Your task to perform on an android device: Open CNN.com Image 0: 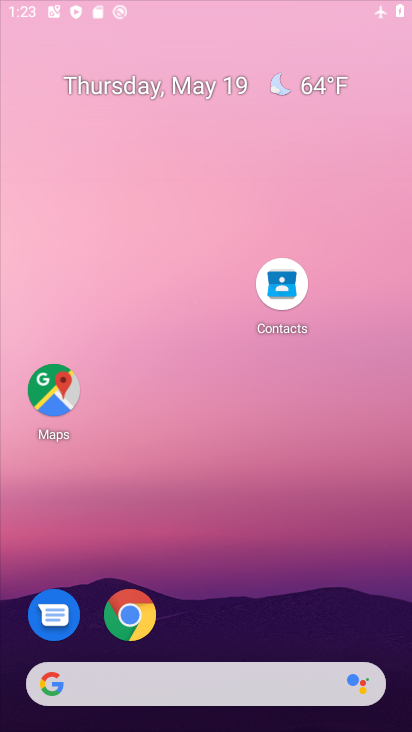
Step 0: drag from (224, 509) to (338, 18)
Your task to perform on an android device: Open CNN.com Image 1: 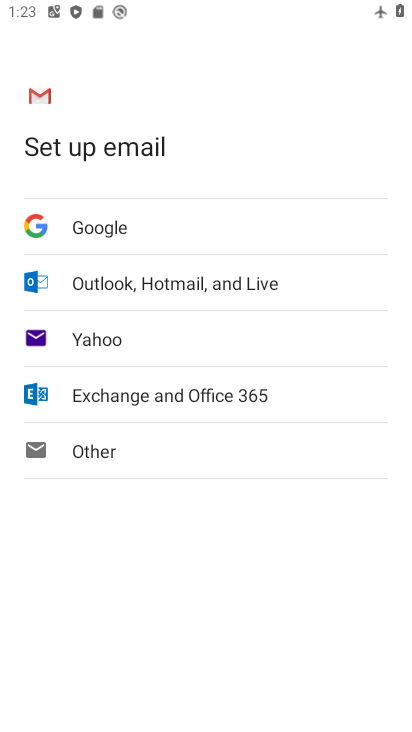
Step 1: press home button
Your task to perform on an android device: Open CNN.com Image 2: 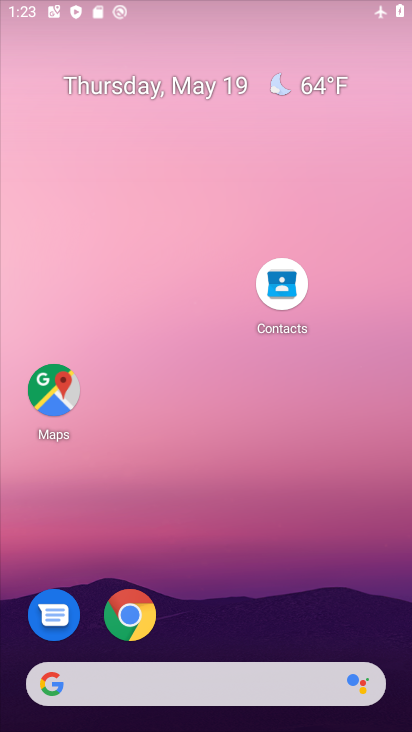
Step 2: drag from (266, 522) to (329, 235)
Your task to perform on an android device: Open CNN.com Image 3: 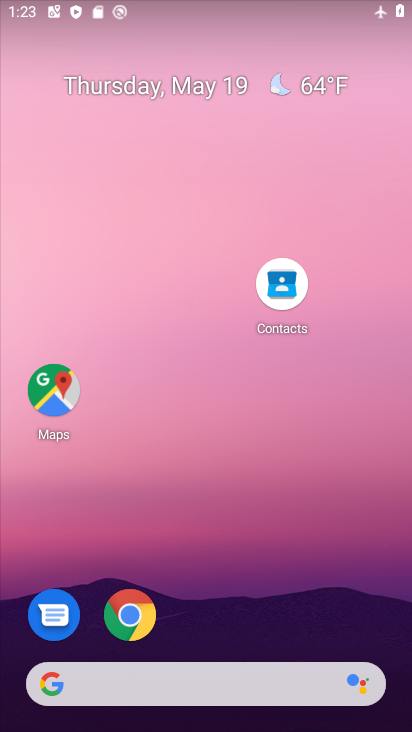
Step 3: click (143, 630)
Your task to perform on an android device: Open CNN.com Image 4: 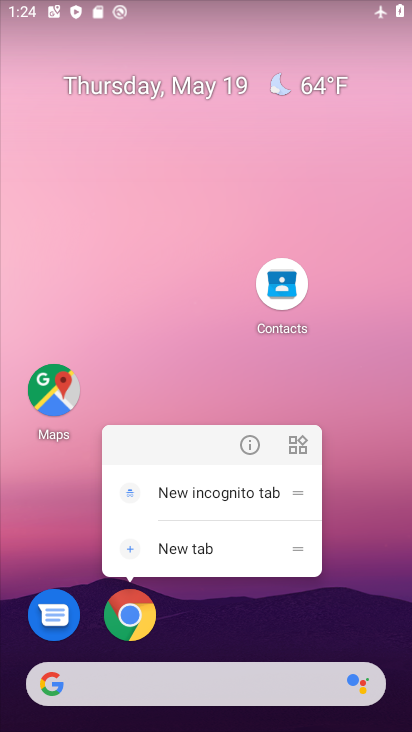
Step 4: click (125, 619)
Your task to perform on an android device: Open CNN.com Image 5: 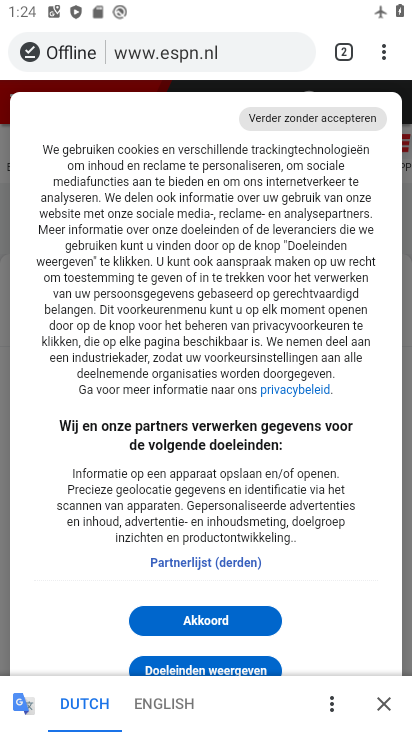
Step 5: click (220, 57)
Your task to perform on an android device: Open CNN.com Image 6: 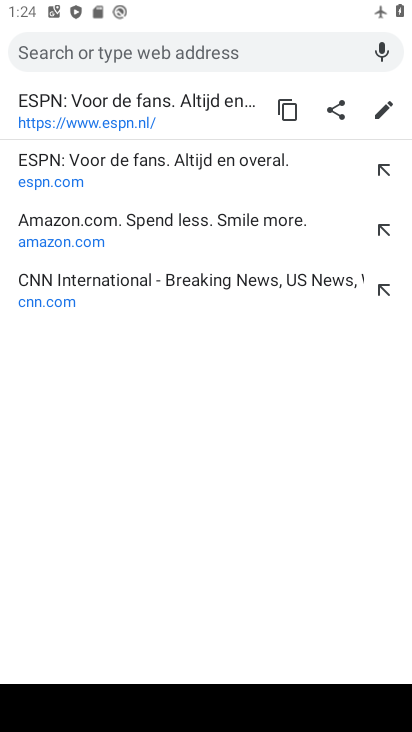
Step 6: type "cnn"
Your task to perform on an android device: Open CNN.com Image 7: 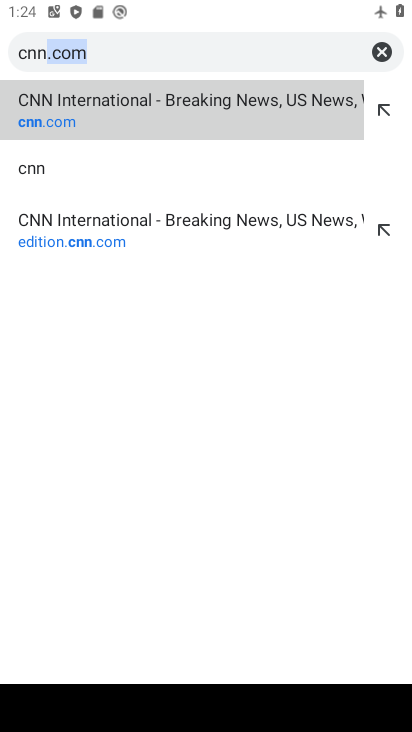
Step 7: click (257, 114)
Your task to perform on an android device: Open CNN.com Image 8: 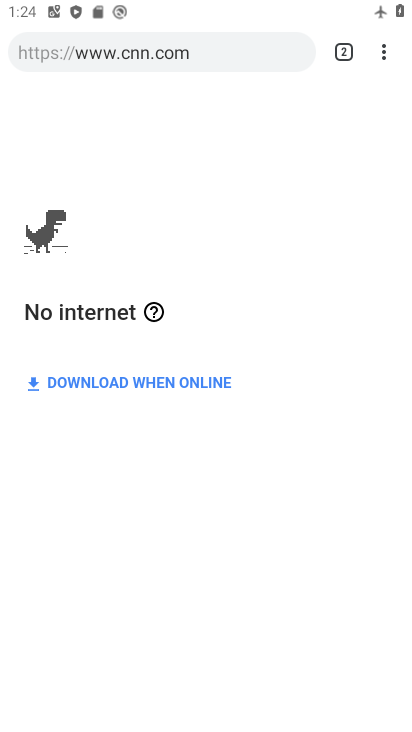
Step 8: task complete